Your task to perform on an android device: uninstall "Google Home" Image 0: 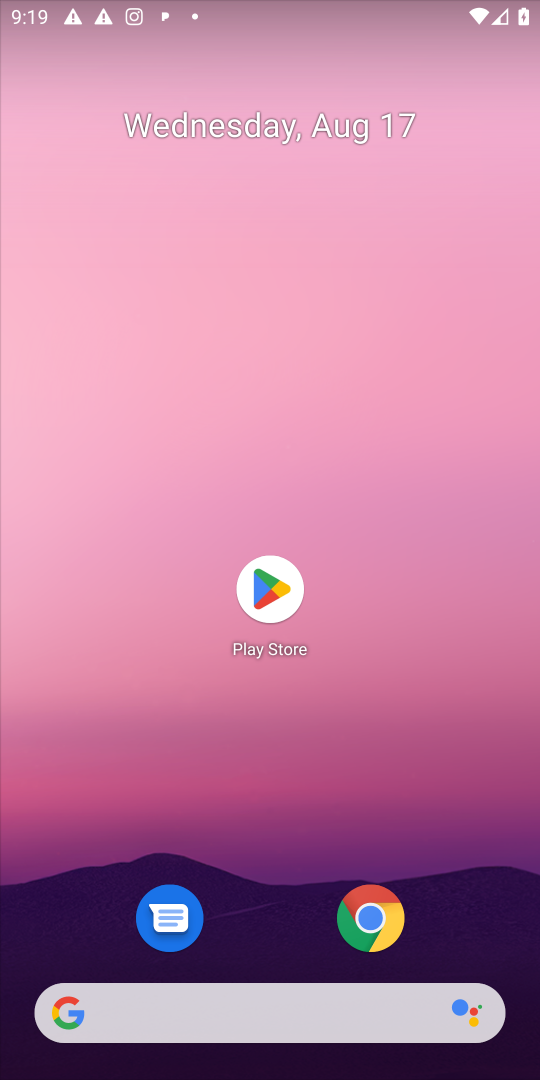
Step 0: click (276, 592)
Your task to perform on an android device: uninstall "Google Home" Image 1: 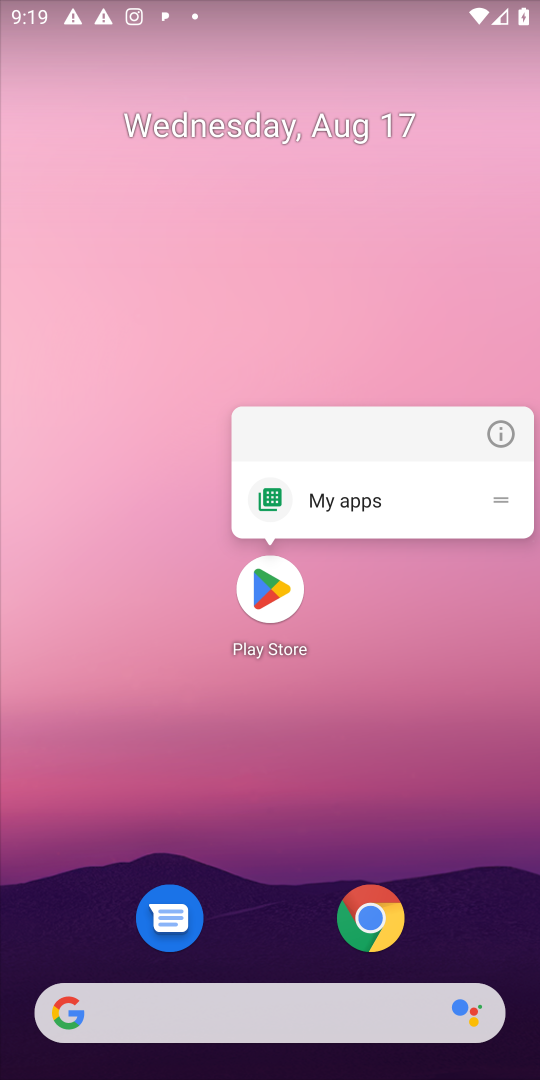
Step 1: click (269, 594)
Your task to perform on an android device: uninstall "Google Home" Image 2: 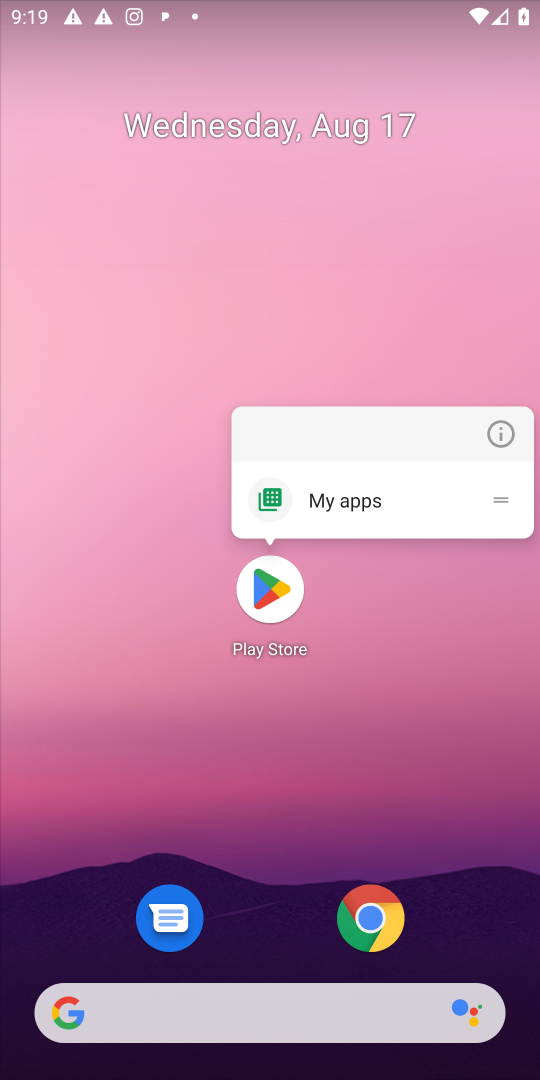
Step 2: click (269, 597)
Your task to perform on an android device: uninstall "Google Home" Image 3: 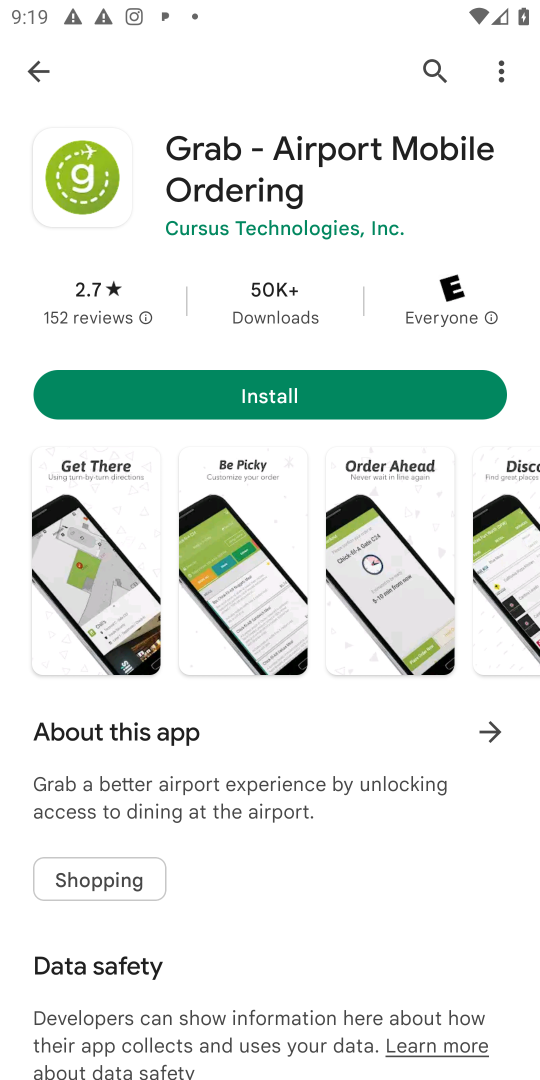
Step 3: click (428, 63)
Your task to perform on an android device: uninstall "Google Home" Image 4: 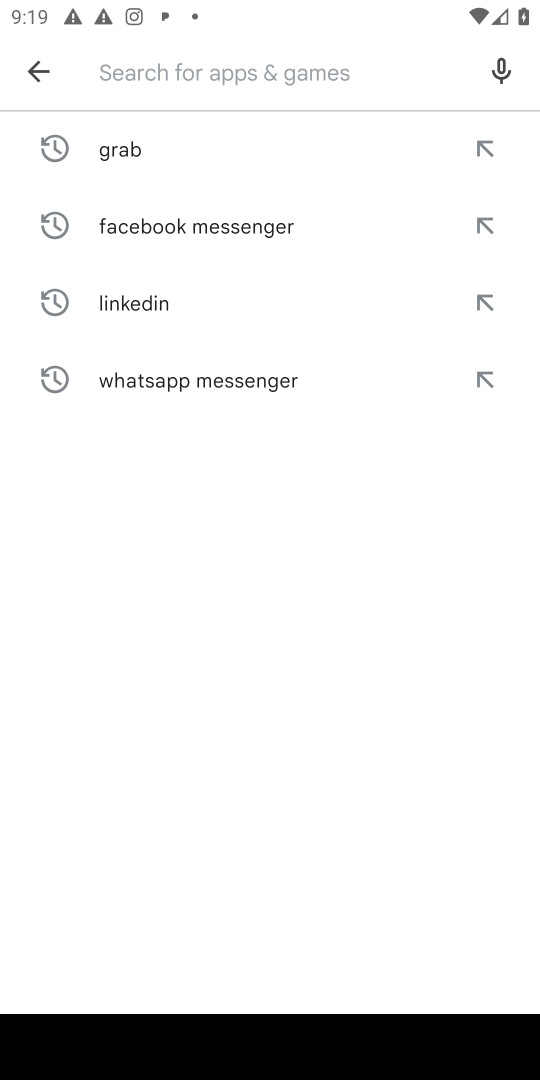
Step 4: type "Google Home"
Your task to perform on an android device: uninstall "Google Home" Image 5: 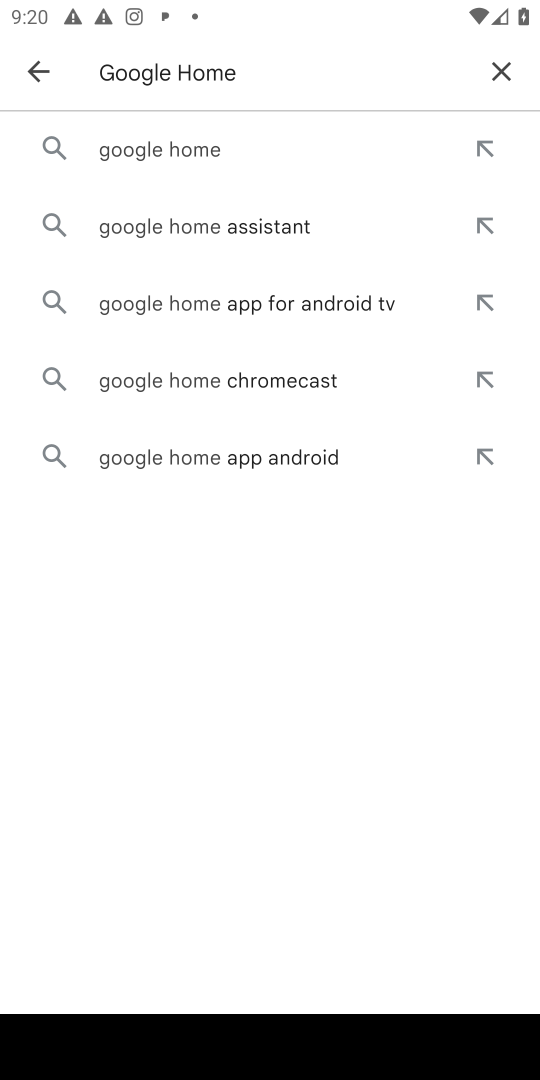
Step 5: click (171, 155)
Your task to perform on an android device: uninstall "Google Home" Image 6: 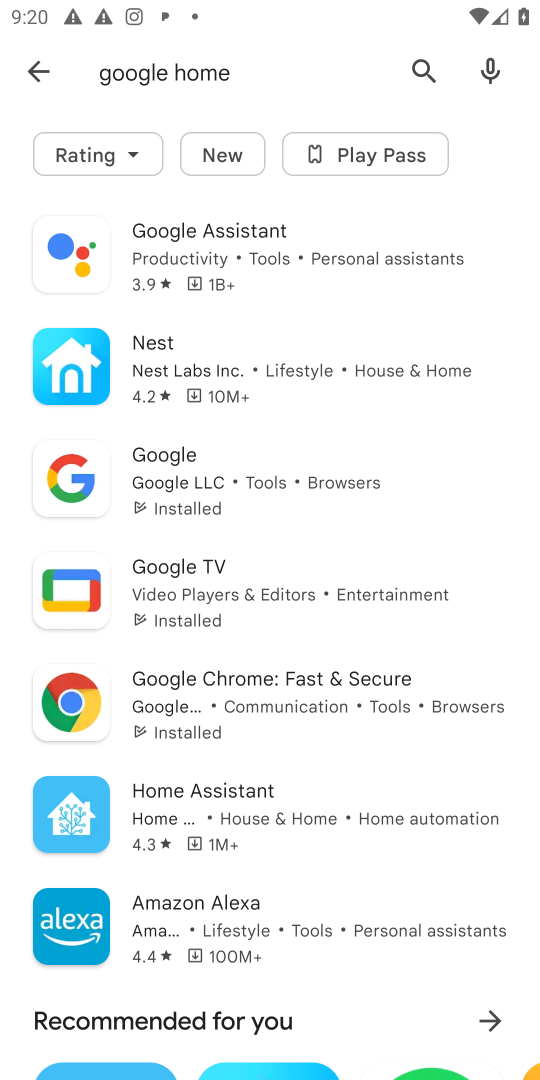
Step 6: task complete